Your task to perform on an android device: Go to eBay Image 0: 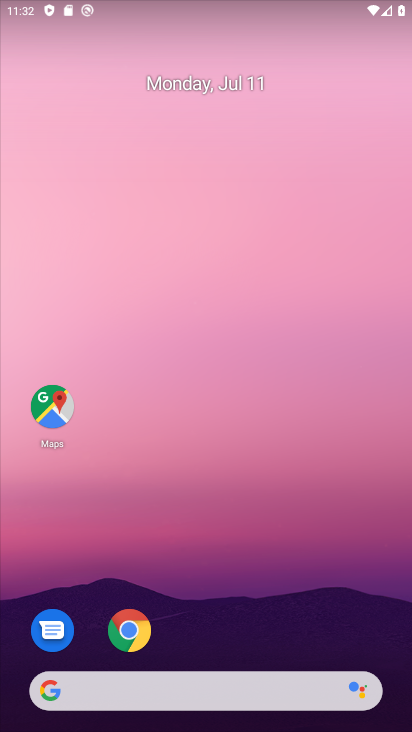
Step 0: click (129, 631)
Your task to perform on an android device: Go to eBay Image 1: 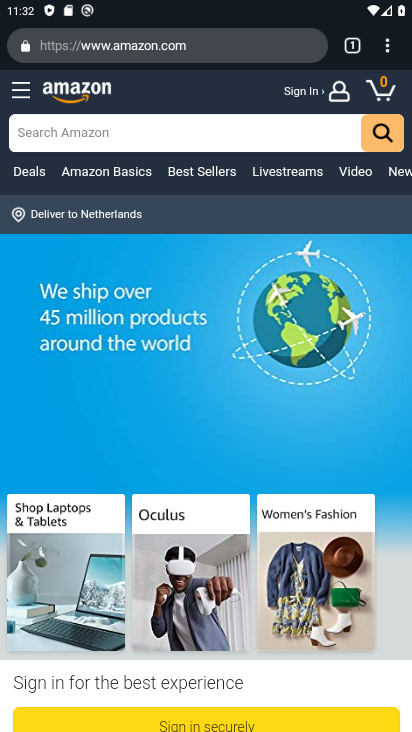
Step 1: click (213, 49)
Your task to perform on an android device: Go to eBay Image 2: 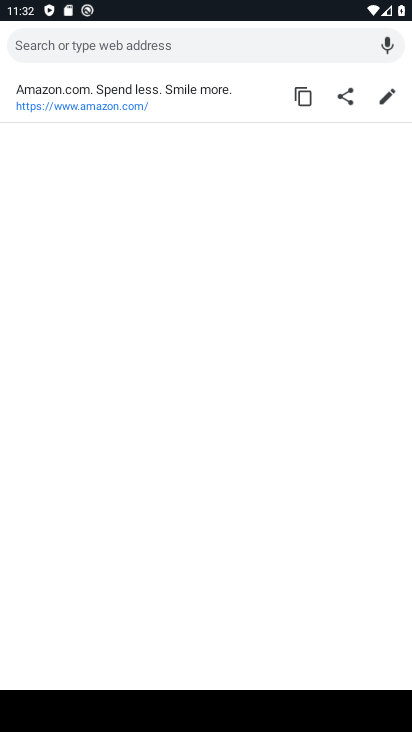
Step 2: type "eBay"
Your task to perform on an android device: Go to eBay Image 3: 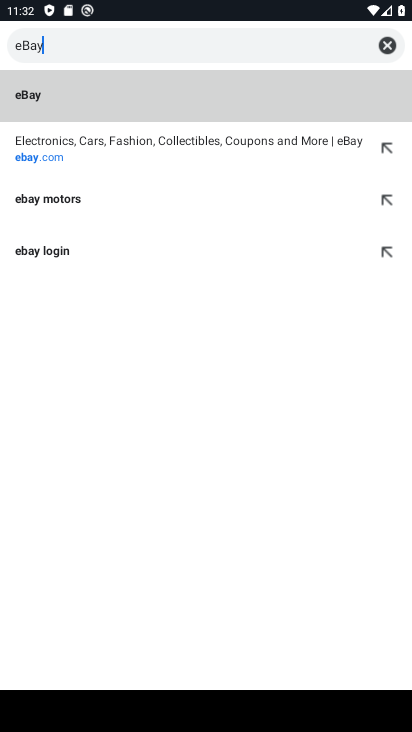
Step 3: click (32, 100)
Your task to perform on an android device: Go to eBay Image 4: 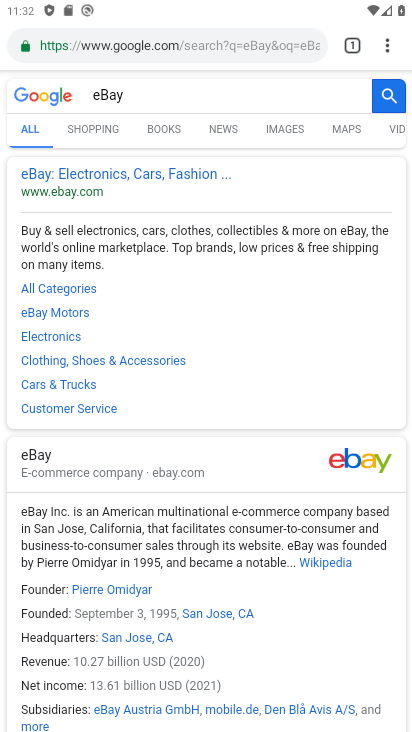
Step 4: click (127, 182)
Your task to perform on an android device: Go to eBay Image 5: 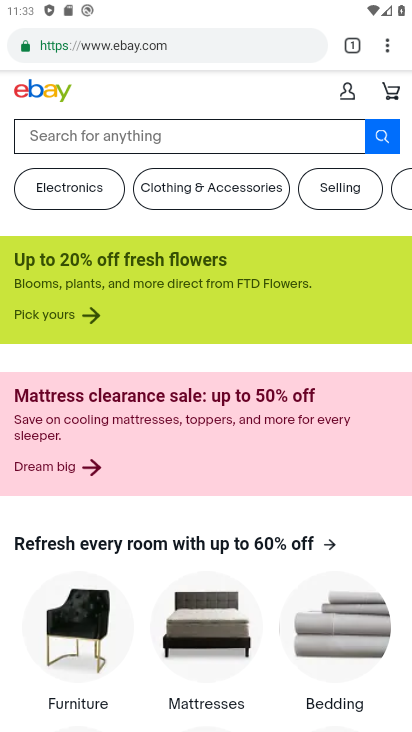
Step 5: task complete